Your task to perform on an android device: create a new album in the google photos Image 0: 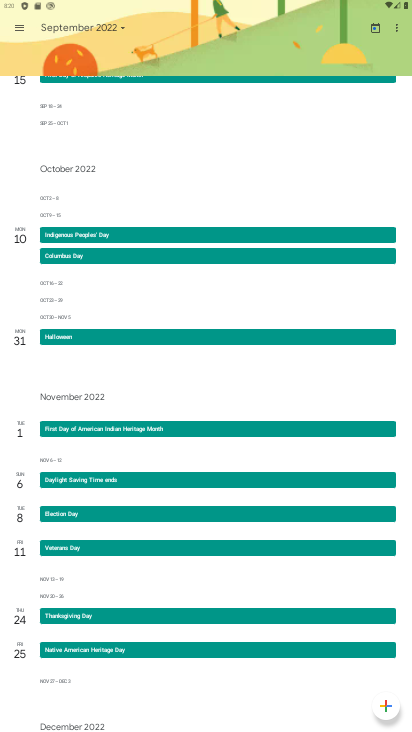
Step 0: press home button
Your task to perform on an android device: create a new album in the google photos Image 1: 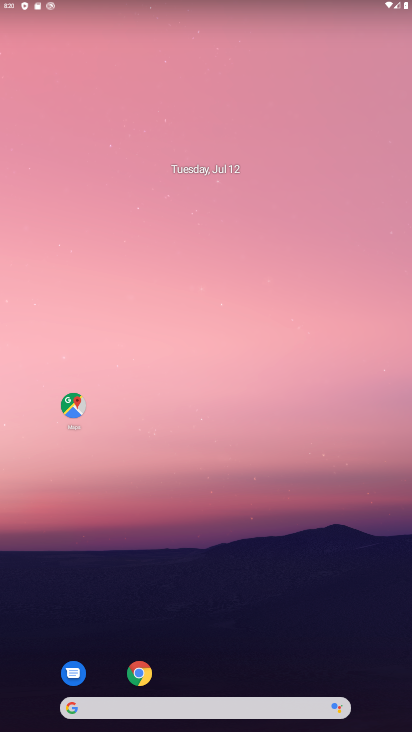
Step 1: drag from (224, 669) to (254, 32)
Your task to perform on an android device: create a new album in the google photos Image 2: 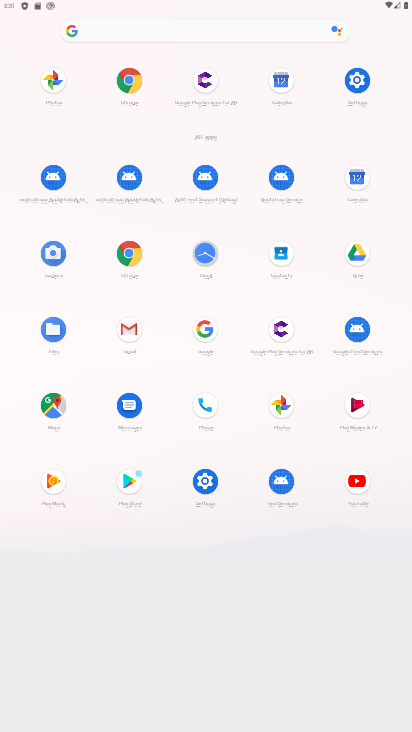
Step 2: click (283, 398)
Your task to perform on an android device: create a new album in the google photos Image 3: 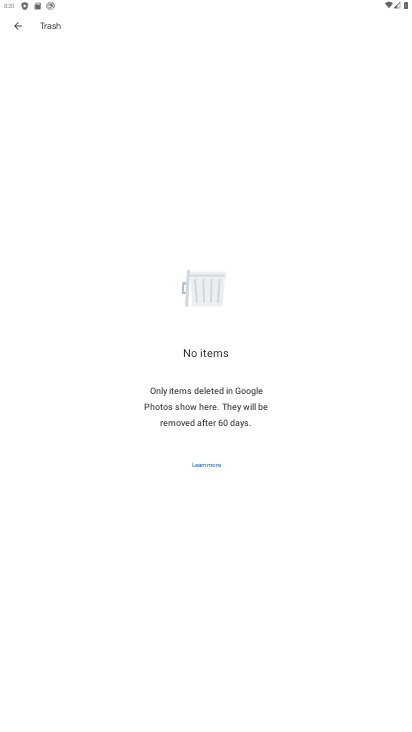
Step 3: click (17, 21)
Your task to perform on an android device: create a new album in the google photos Image 4: 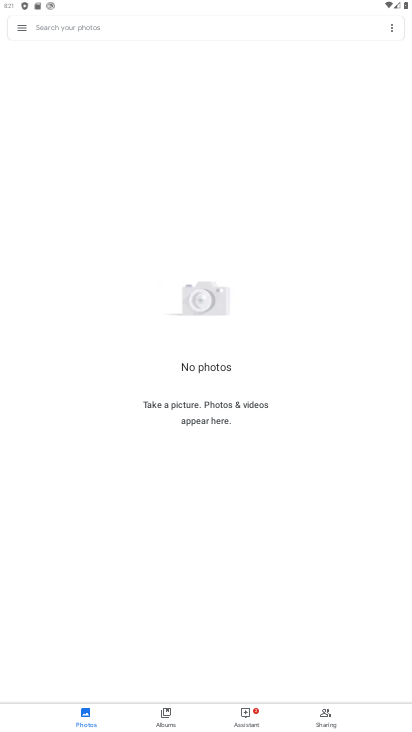
Step 4: click (81, 711)
Your task to perform on an android device: create a new album in the google photos Image 5: 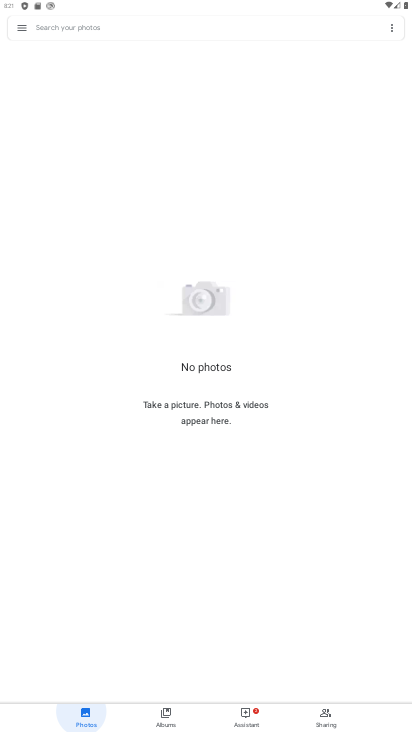
Step 5: click (81, 711)
Your task to perform on an android device: create a new album in the google photos Image 6: 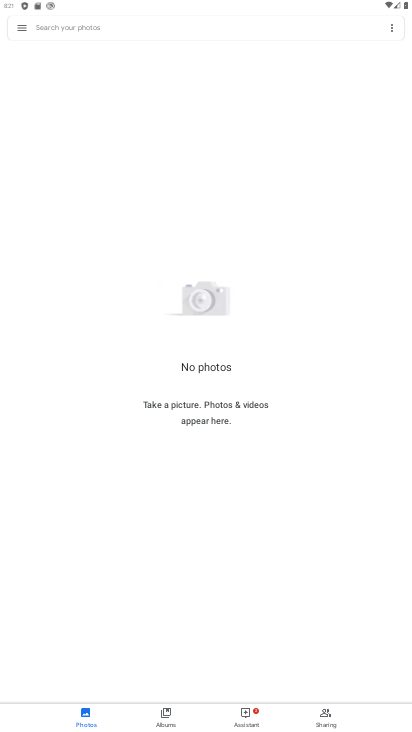
Step 6: task complete